Your task to perform on an android device: turn on showing notifications on the lock screen Image 0: 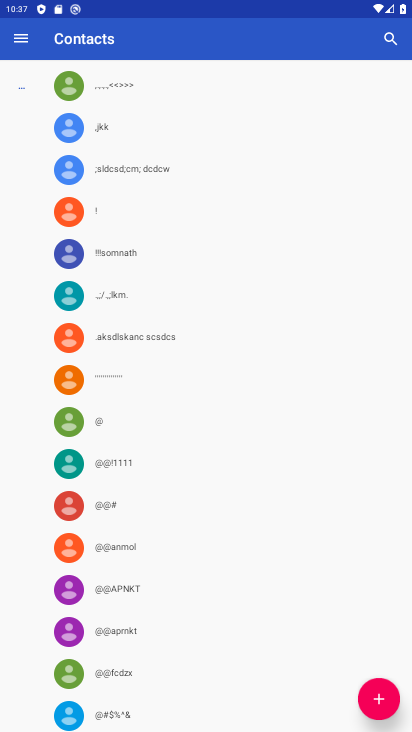
Step 0: press home button
Your task to perform on an android device: turn on showing notifications on the lock screen Image 1: 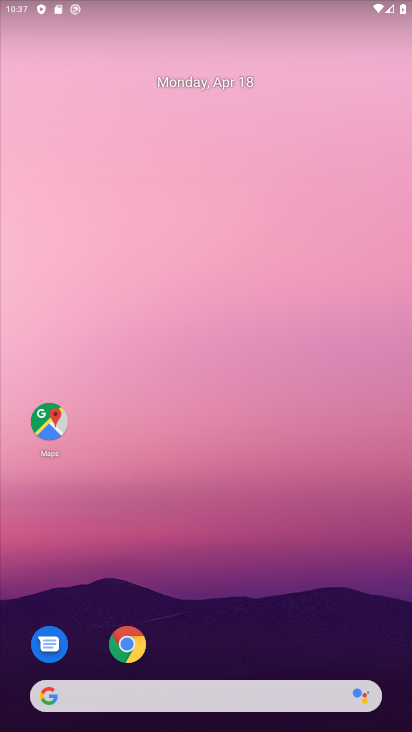
Step 1: click (130, 645)
Your task to perform on an android device: turn on showing notifications on the lock screen Image 2: 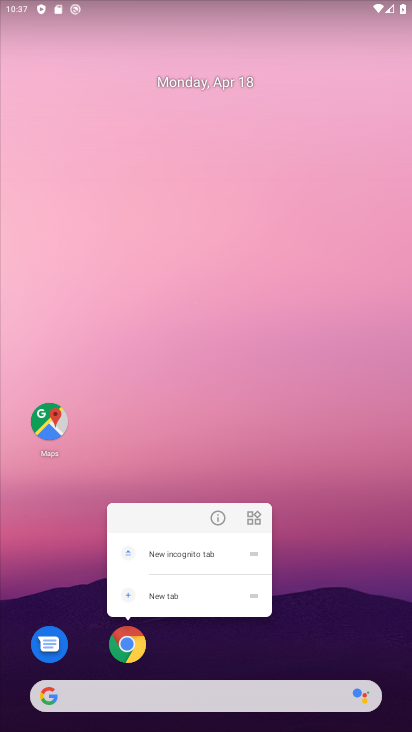
Step 2: drag from (197, 632) to (239, 288)
Your task to perform on an android device: turn on showing notifications on the lock screen Image 3: 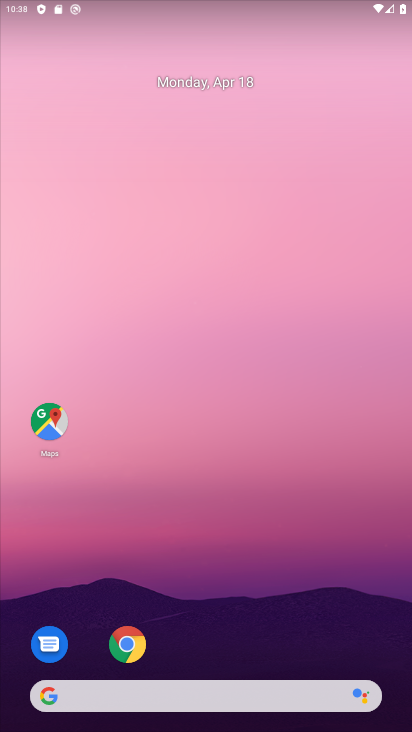
Step 3: drag from (209, 634) to (231, 141)
Your task to perform on an android device: turn on showing notifications on the lock screen Image 4: 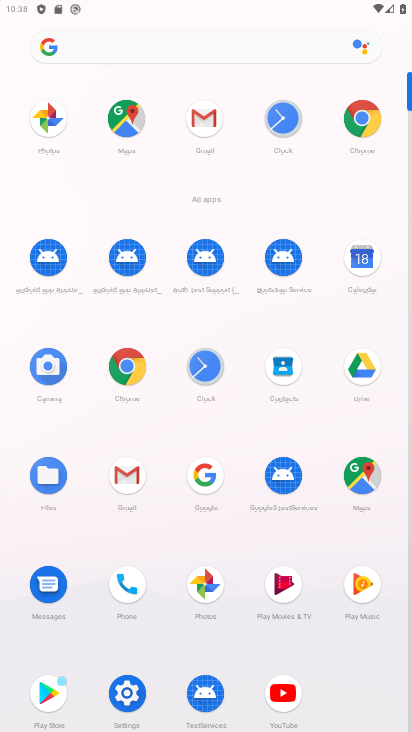
Step 4: click (131, 685)
Your task to perform on an android device: turn on showing notifications on the lock screen Image 5: 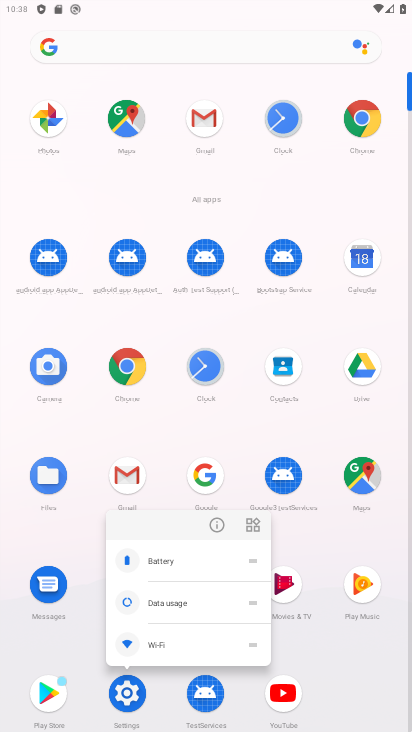
Step 5: click (224, 526)
Your task to perform on an android device: turn on showing notifications on the lock screen Image 6: 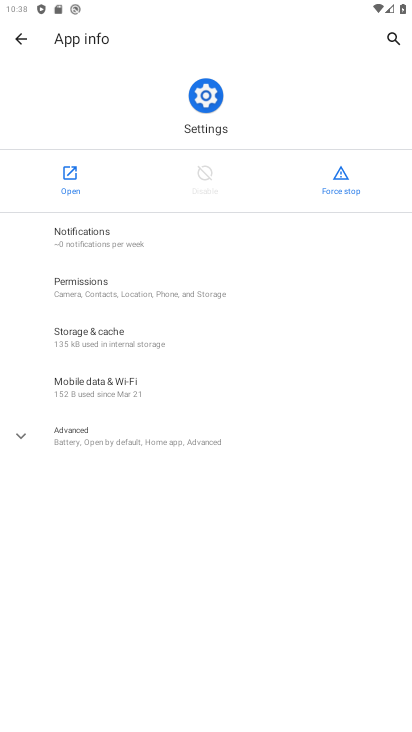
Step 6: click (66, 174)
Your task to perform on an android device: turn on showing notifications on the lock screen Image 7: 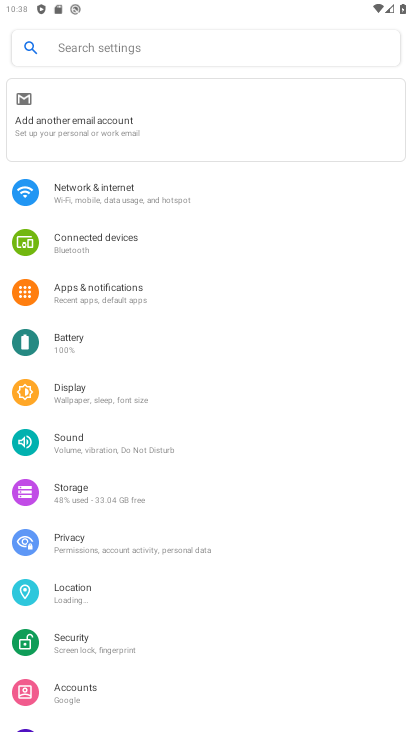
Step 7: click (119, 287)
Your task to perform on an android device: turn on showing notifications on the lock screen Image 8: 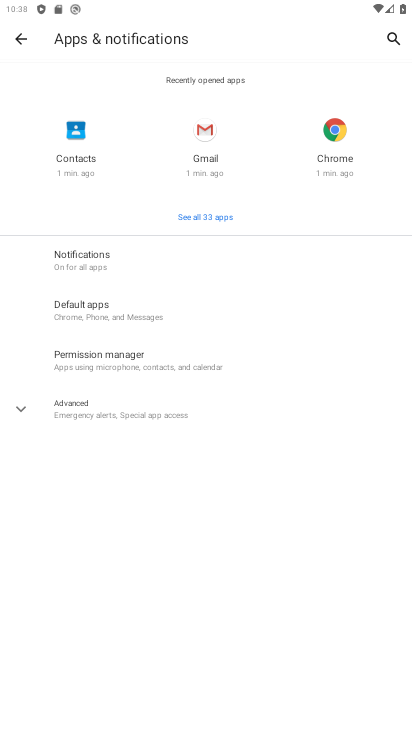
Step 8: click (107, 261)
Your task to perform on an android device: turn on showing notifications on the lock screen Image 9: 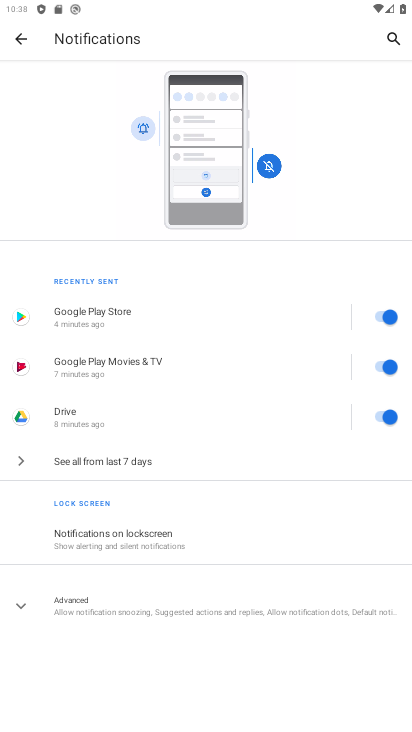
Step 9: click (136, 545)
Your task to perform on an android device: turn on showing notifications on the lock screen Image 10: 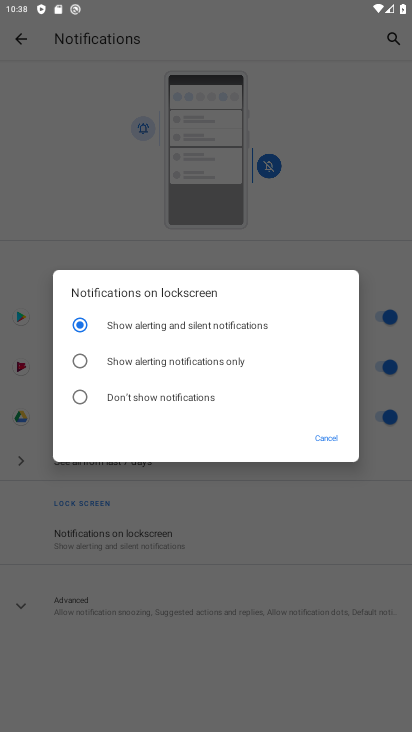
Step 10: task complete